Your task to perform on an android device: show emergency info Image 0: 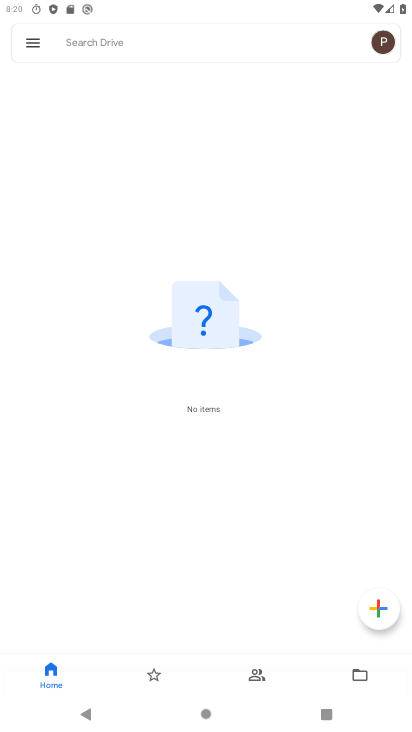
Step 0: press home button
Your task to perform on an android device: show emergency info Image 1: 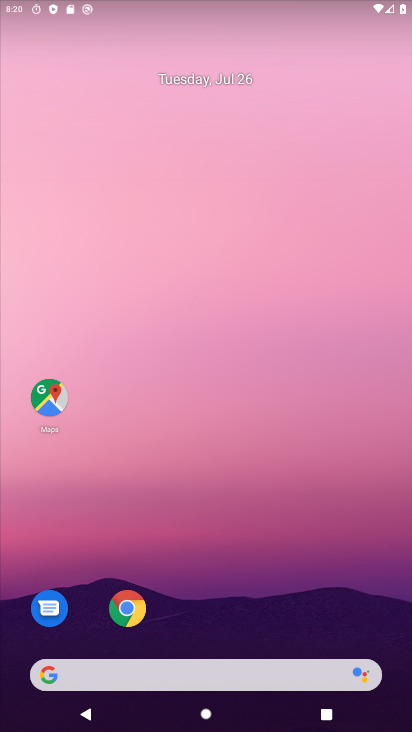
Step 1: drag from (303, 669) to (374, 100)
Your task to perform on an android device: show emergency info Image 2: 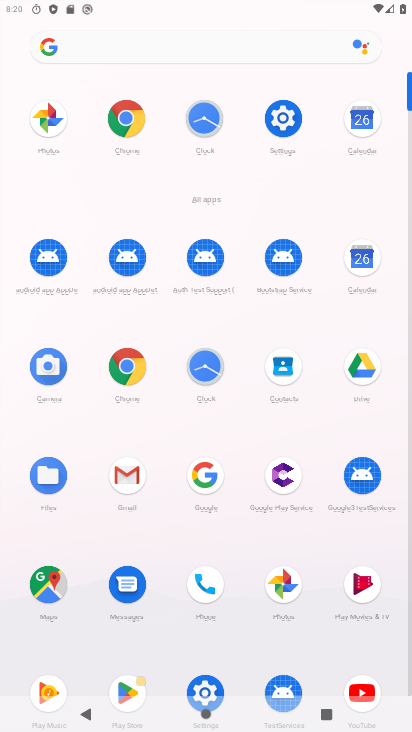
Step 2: click (288, 117)
Your task to perform on an android device: show emergency info Image 3: 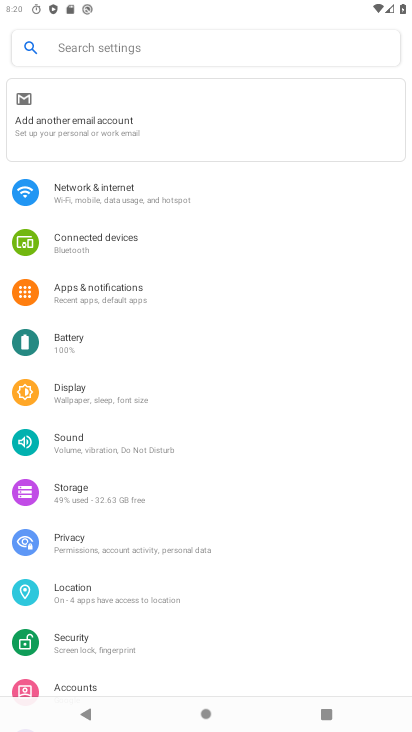
Step 3: drag from (221, 673) to (268, 116)
Your task to perform on an android device: show emergency info Image 4: 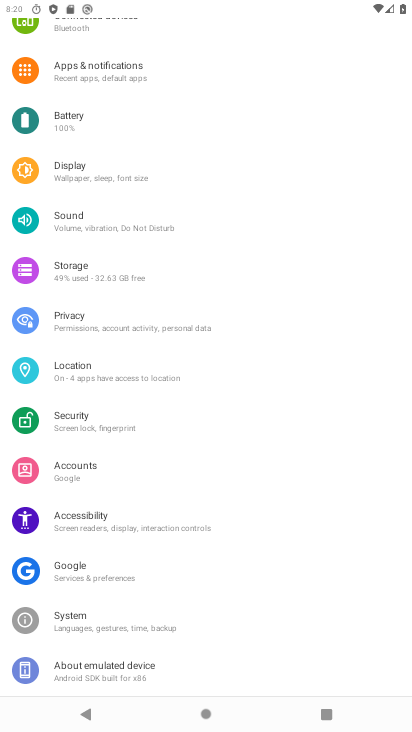
Step 4: click (156, 674)
Your task to perform on an android device: show emergency info Image 5: 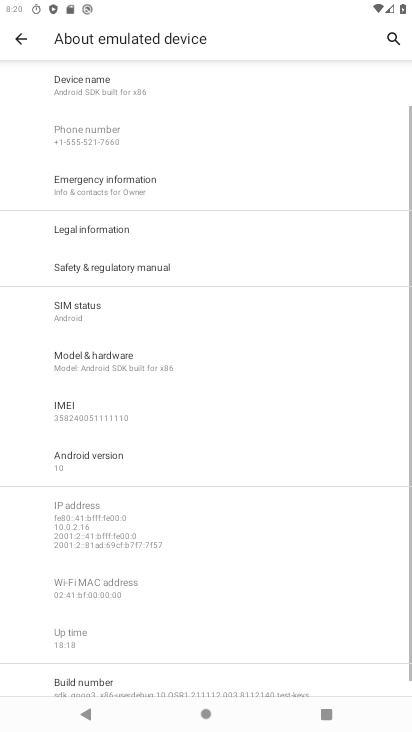
Step 5: click (145, 176)
Your task to perform on an android device: show emergency info Image 6: 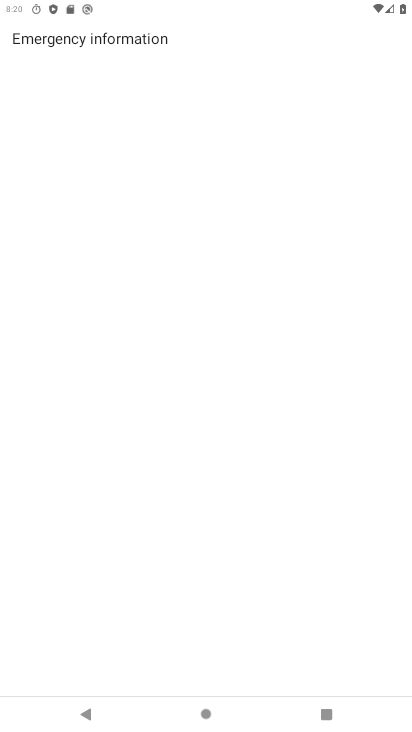
Step 6: task complete